Your task to perform on an android device: uninstall "Chime – Mobile Banking" Image 0: 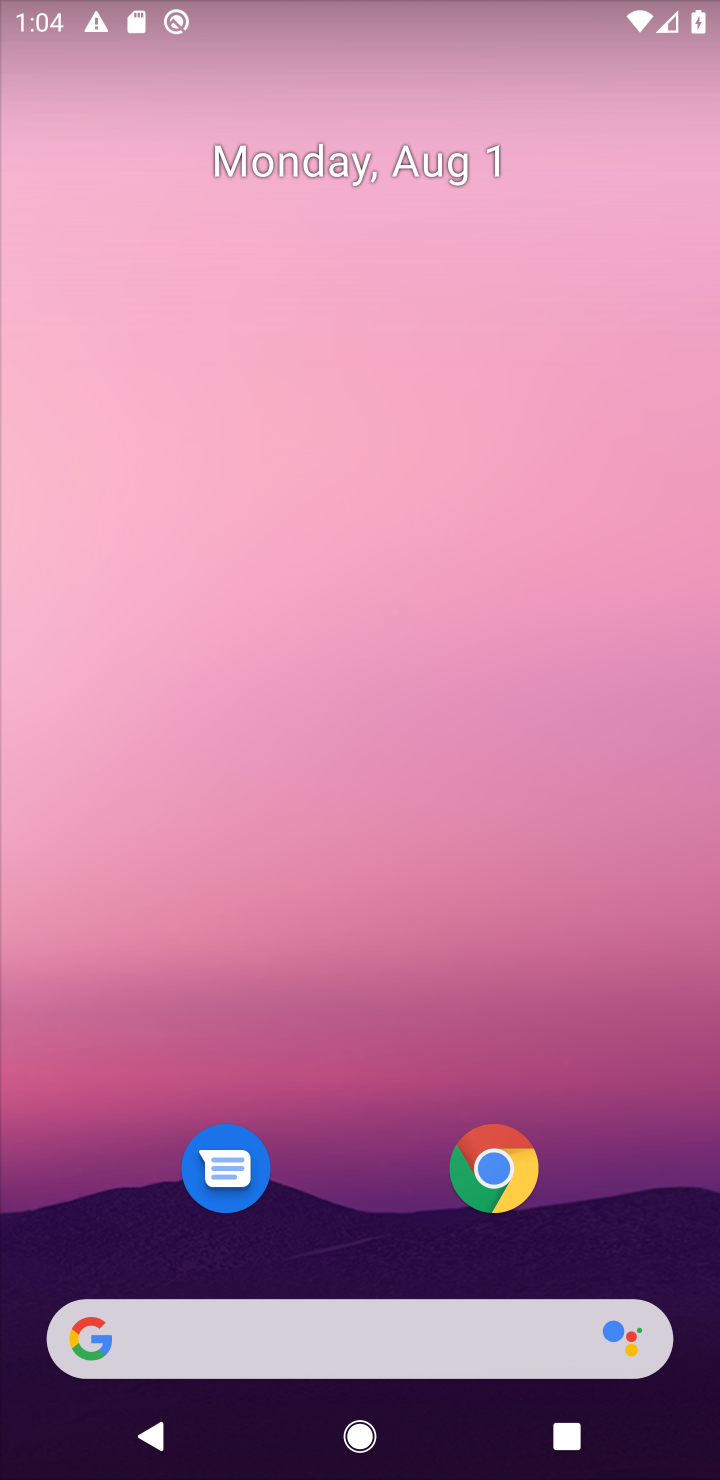
Step 0: drag from (362, 901) to (373, 262)
Your task to perform on an android device: uninstall "Chime – Mobile Banking" Image 1: 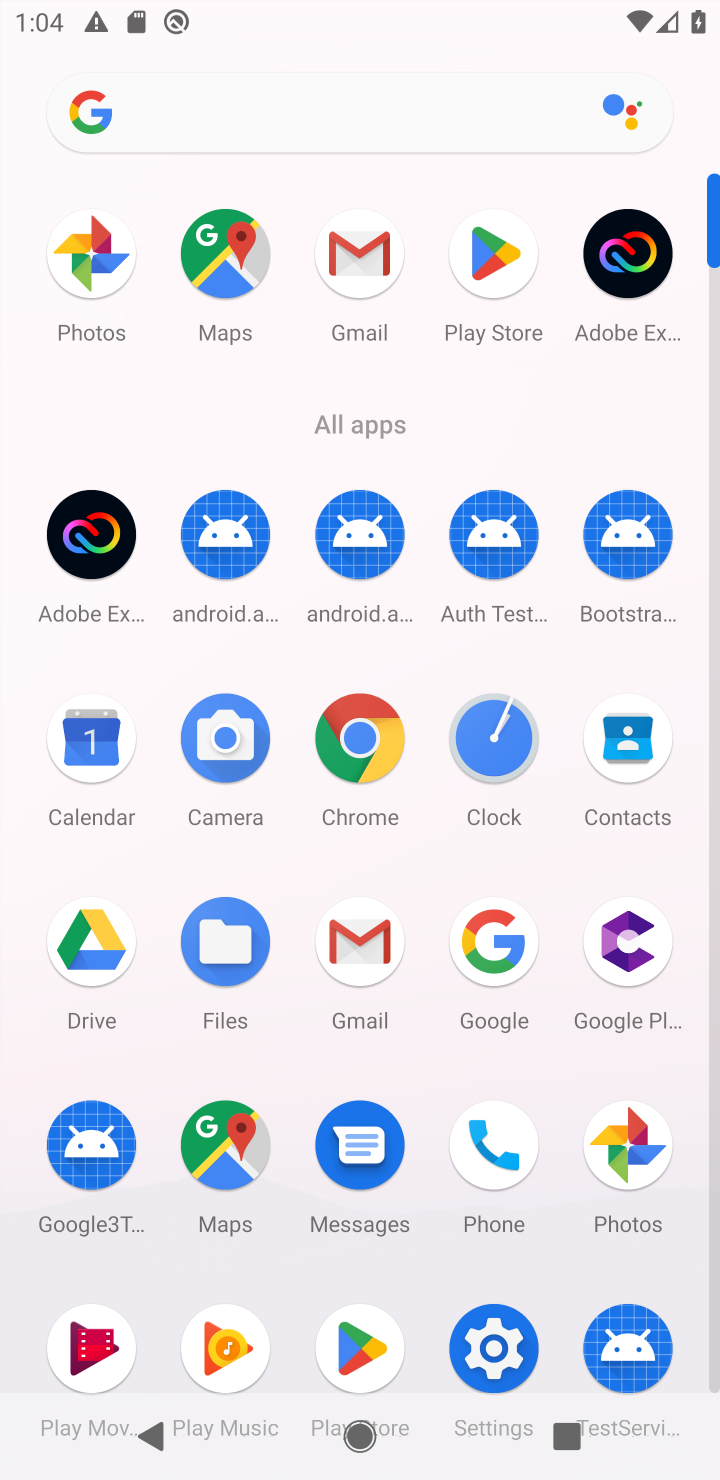
Step 1: click (498, 235)
Your task to perform on an android device: uninstall "Chime – Mobile Banking" Image 2: 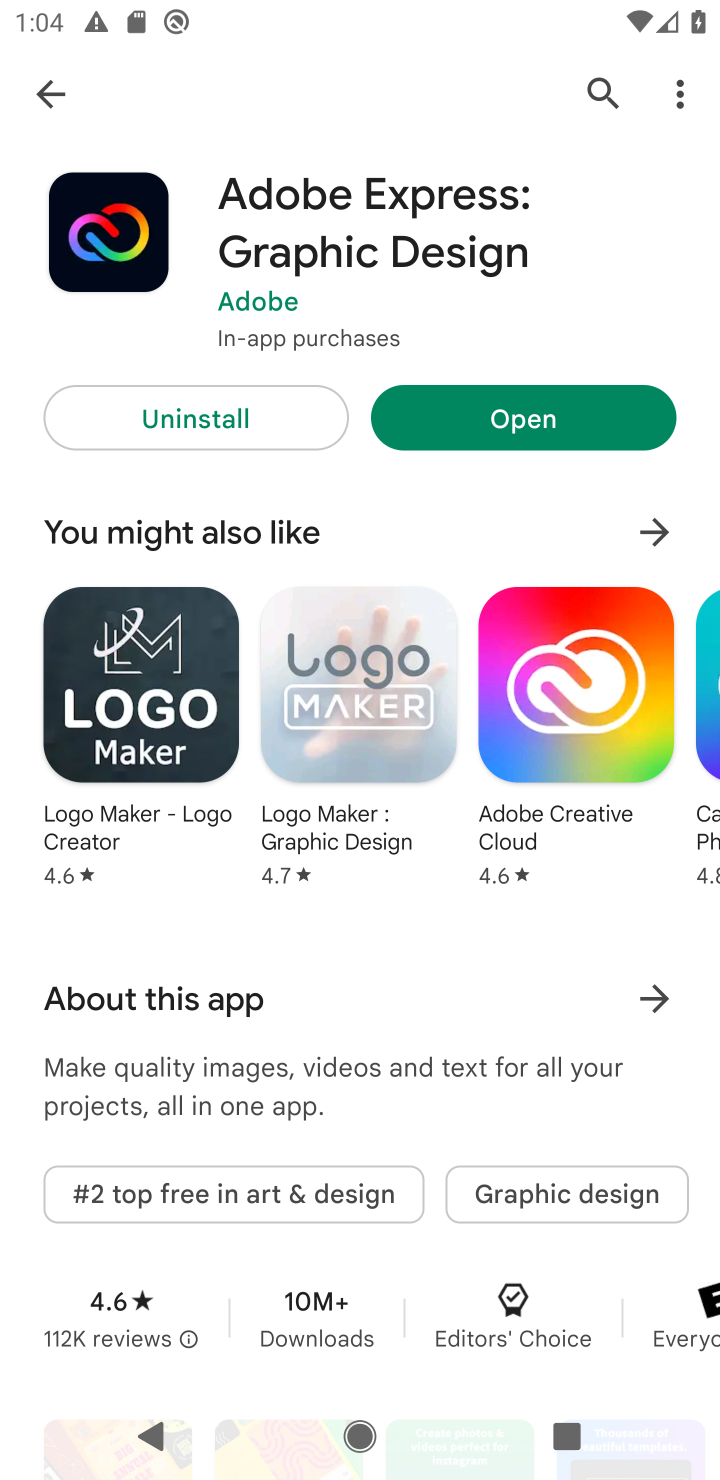
Step 2: click (593, 79)
Your task to perform on an android device: uninstall "Chime – Mobile Banking" Image 3: 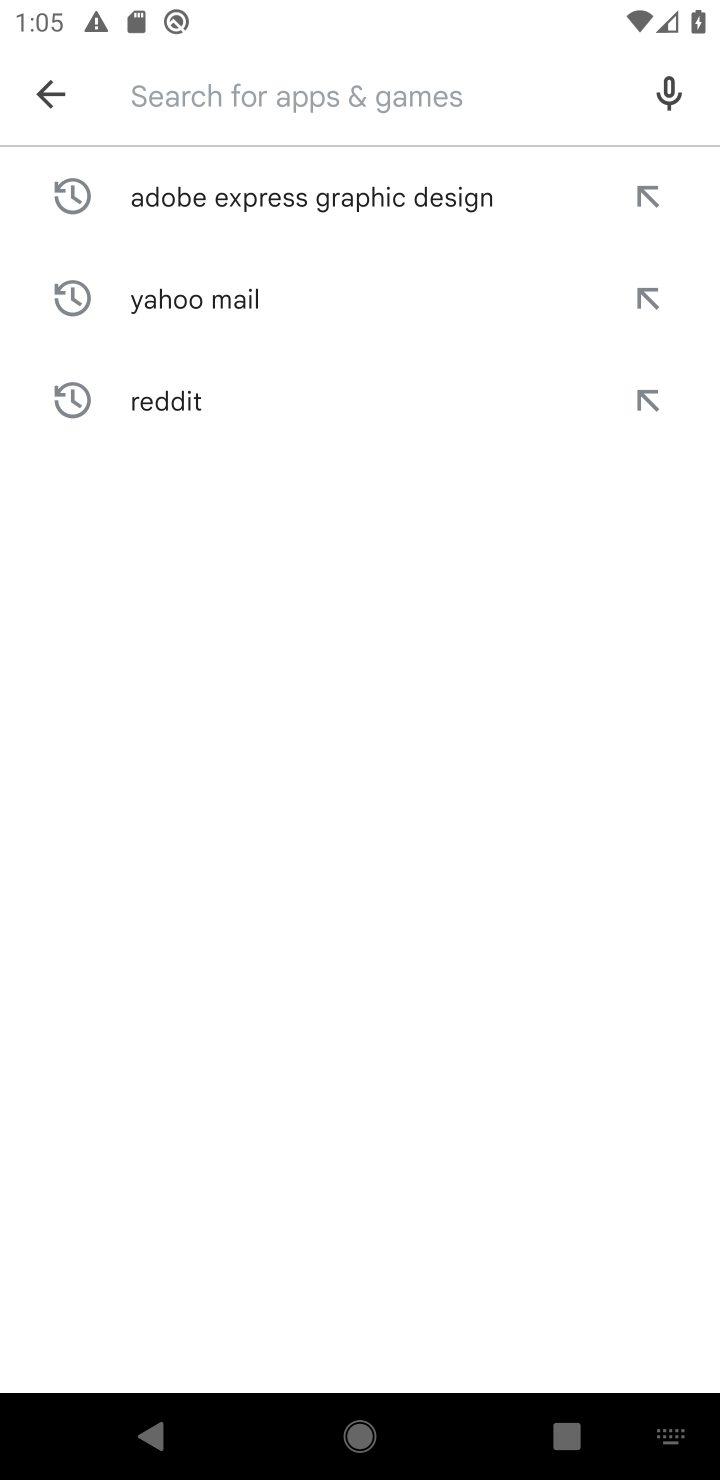
Step 3: type "chime - mobile banking"
Your task to perform on an android device: uninstall "Chime – Mobile Banking" Image 4: 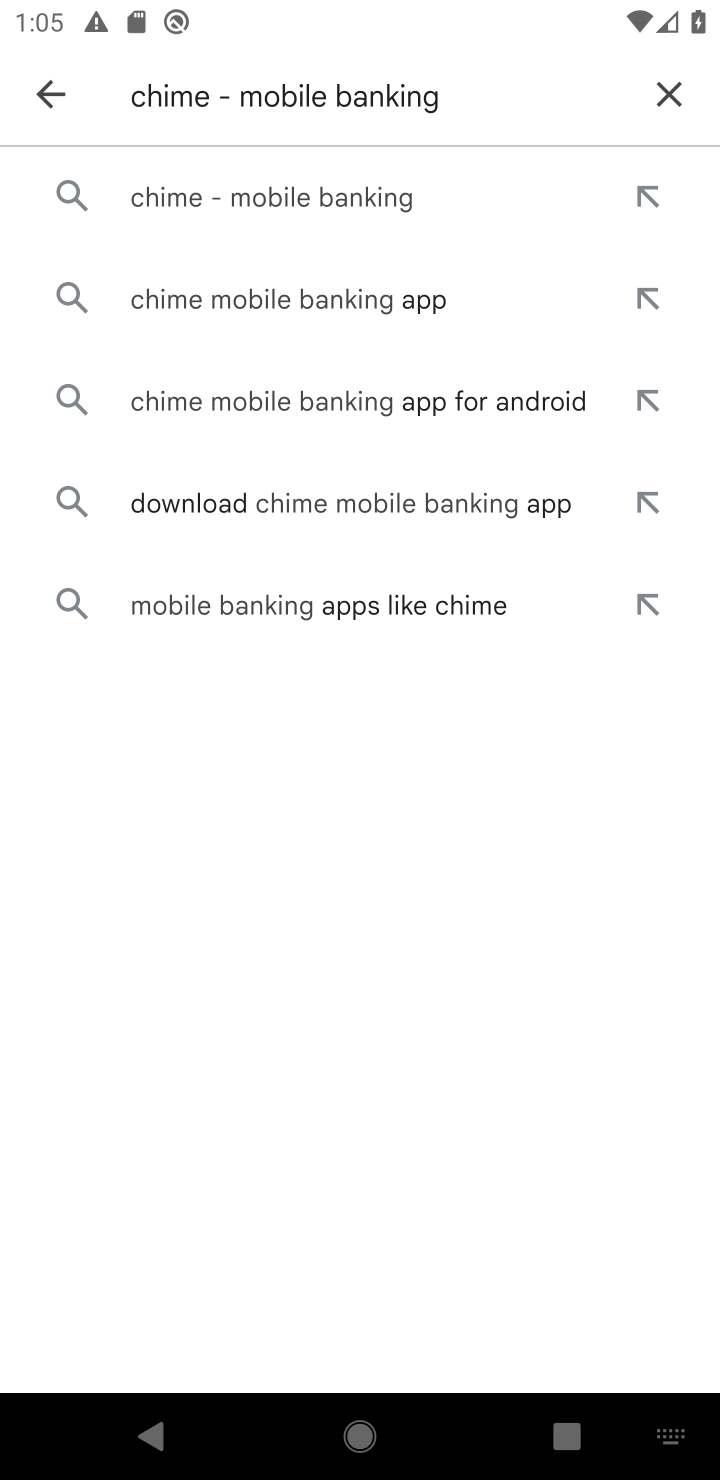
Step 4: click (262, 212)
Your task to perform on an android device: uninstall "Chime – Mobile Banking" Image 5: 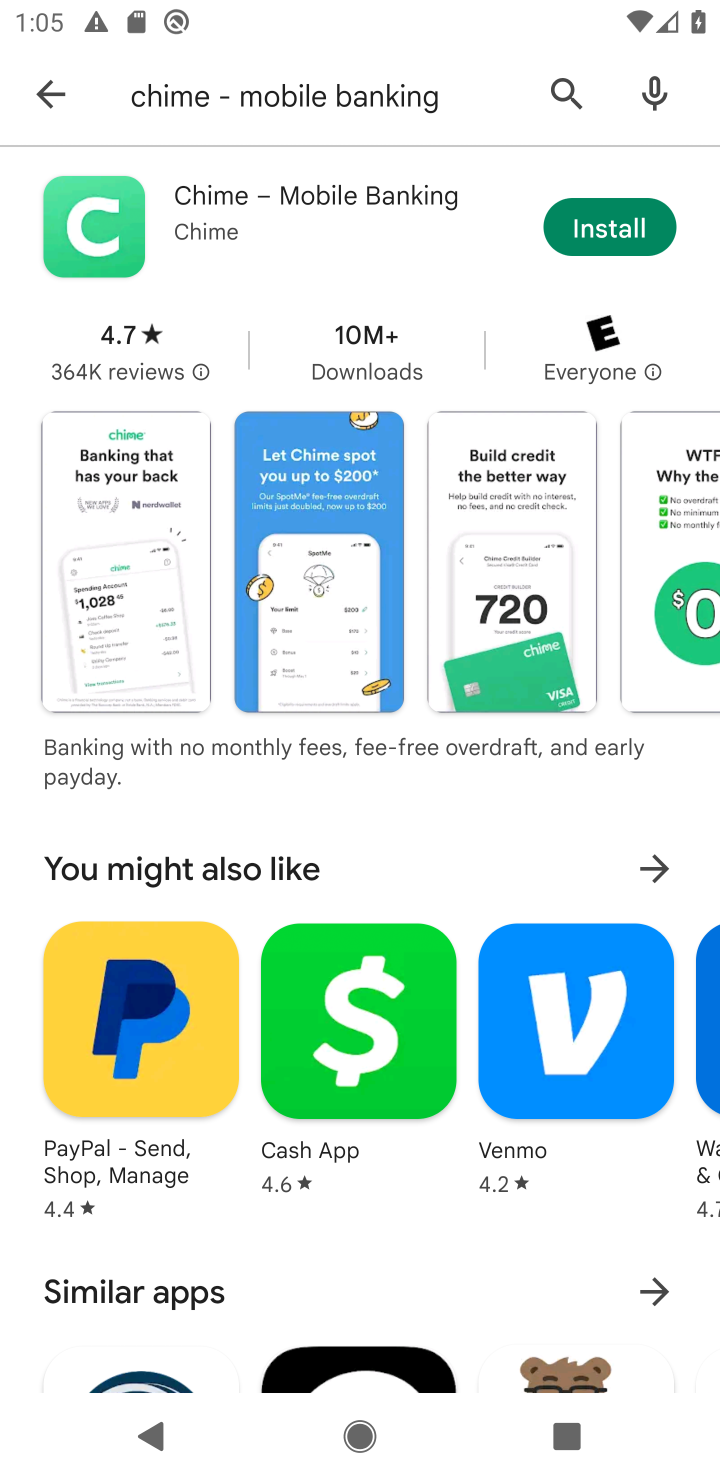
Step 5: click (298, 192)
Your task to perform on an android device: uninstall "Chime – Mobile Banking" Image 6: 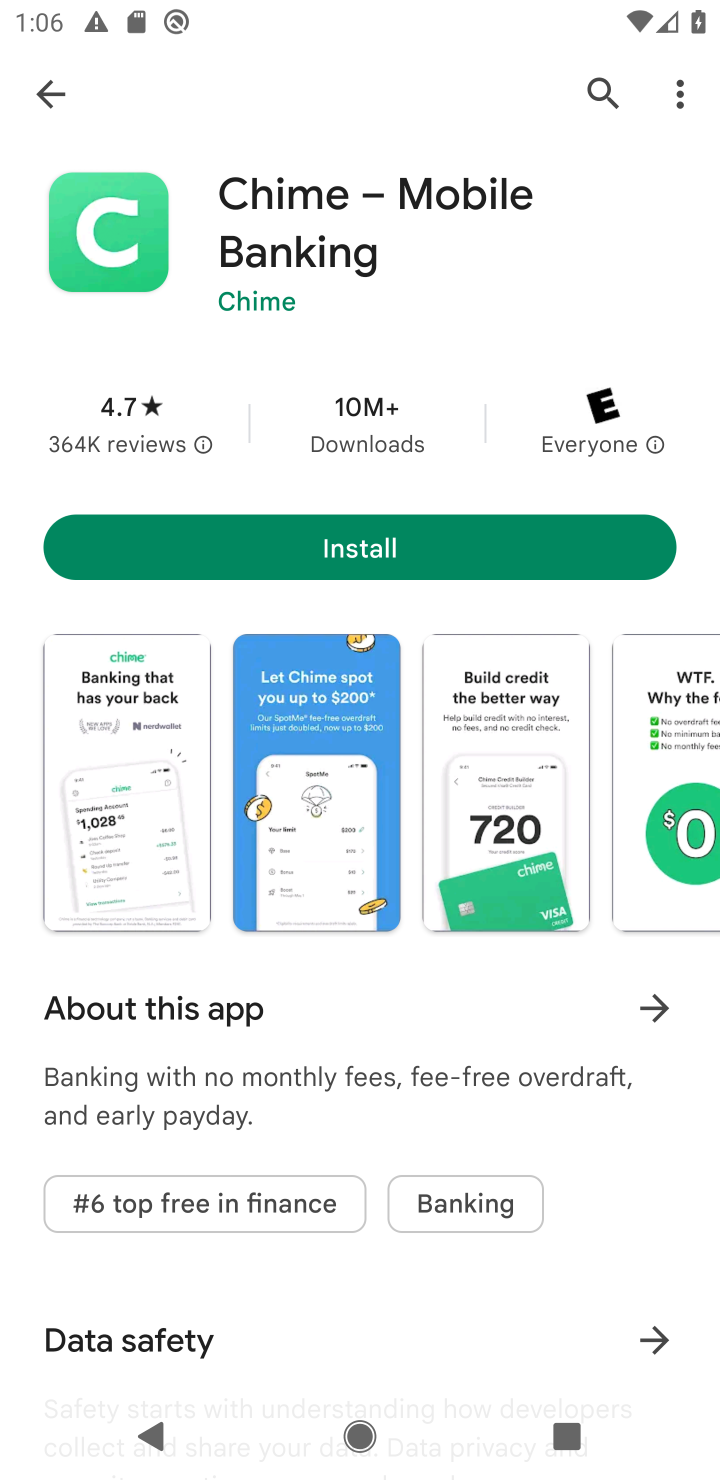
Step 6: task complete